Your task to perform on an android device: turn vacation reply on in the gmail app Image 0: 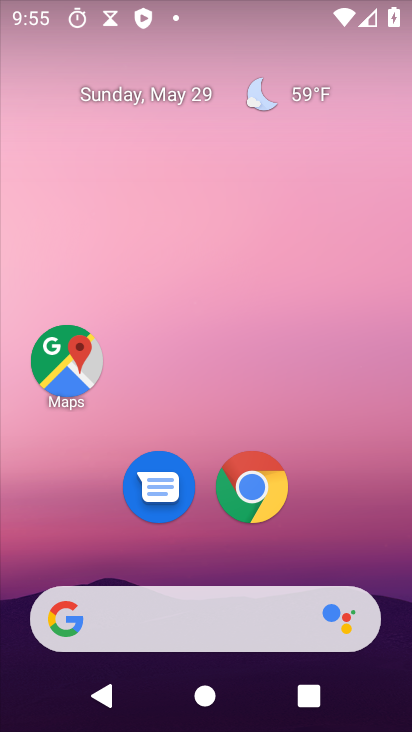
Step 0: drag from (325, 556) to (243, 72)
Your task to perform on an android device: turn vacation reply on in the gmail app Image 1: 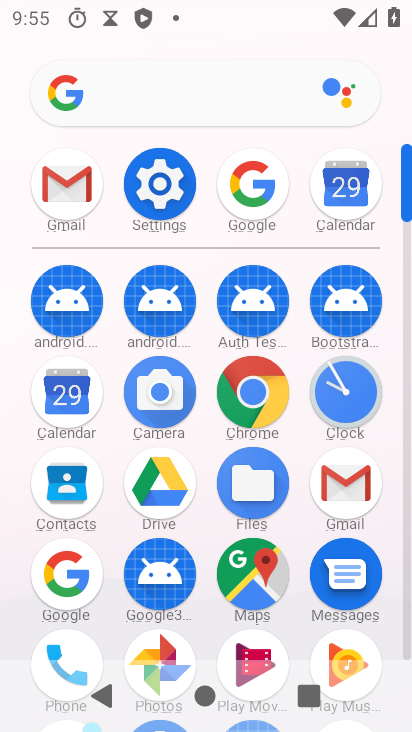
Step 1: click (64, 180)
Your task to perform on an android device: turn vacation reply on in the gmail app Image 2: 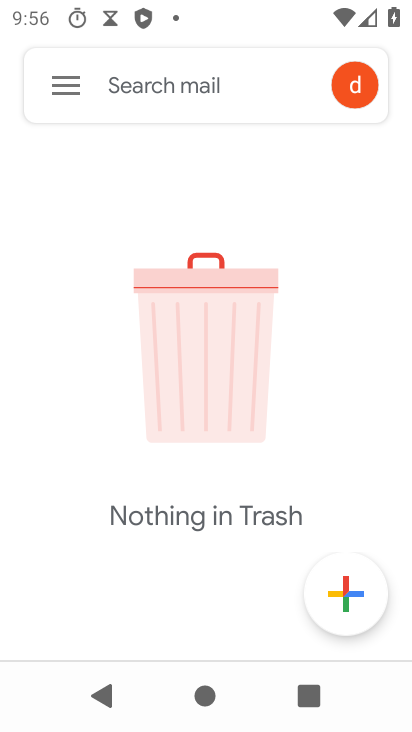
Step 2: click (65, 86)
Your task to perform on an android device: turn vacation reply on in the gmail app Image 3: 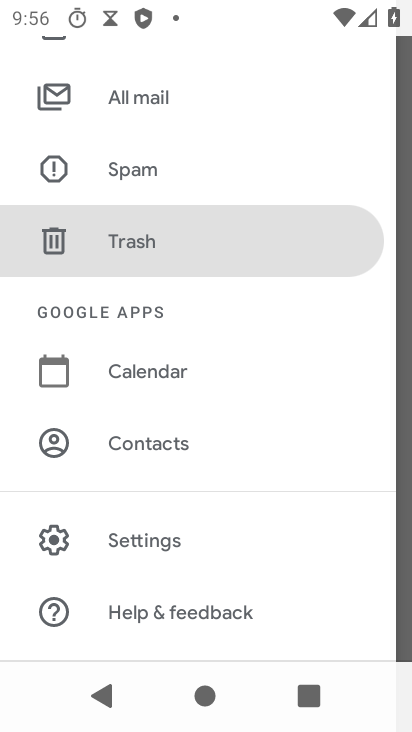
Step 3: drag from (191, 488) to (219, 386)
Your task to perform on an android device: turn vacation reply on in the gmail app Image 4: 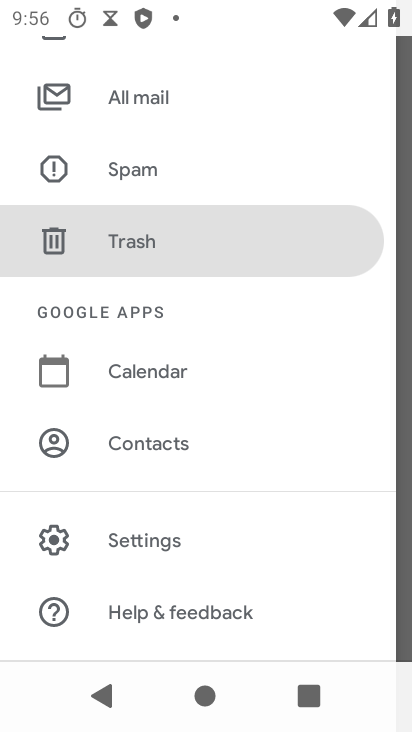
Step 4: click (145, 551)
Your task to perform on an android device: turn vacation reply on in the gmail app Image 5: 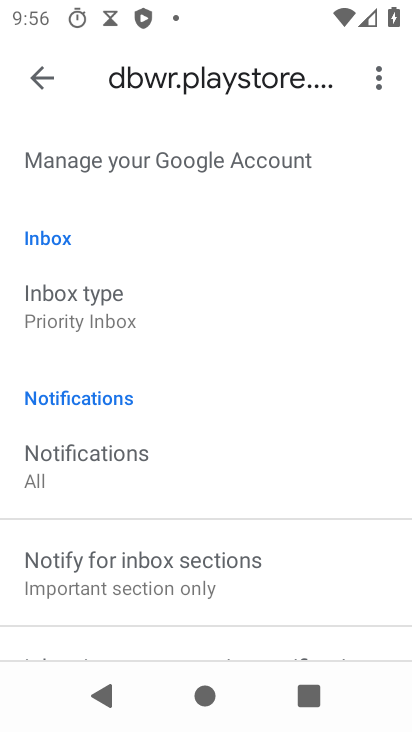
Step 5: drag from (145, 493) to (230, 385)
Your task to perform on an android device: turn vacation reply on in the gmail app Image 6: 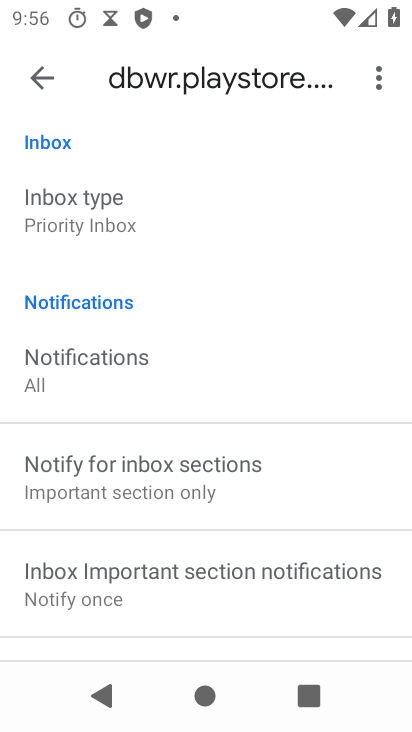
Step 6: drag from (152, 598) to (224, 453)
Your task to perform on an android device: turn vacation reply on in the gmail app Image 7: 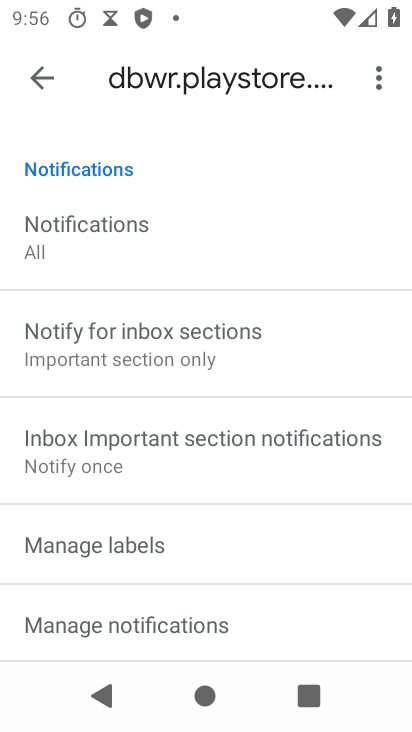
Step 7: drag from (175, 563) to (304, 377)
Your task to perform on an android device: turn vacation reply on in the gmail app Image 8: 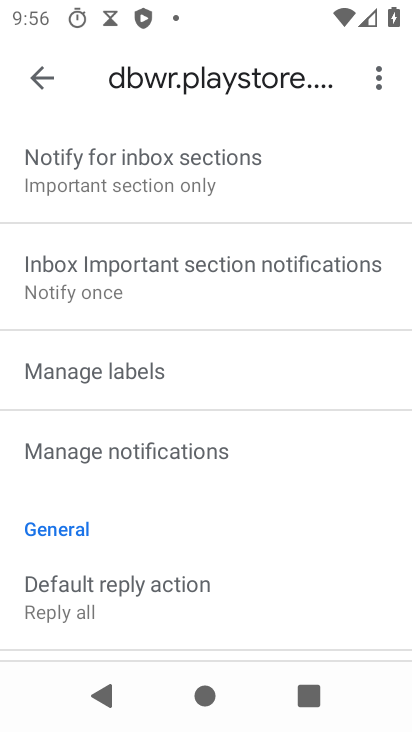
Step 8: drag from (127, 551) to (261, 332)
Your task to perform on an android device: turn vacation reply on in the gmail app Image 9: 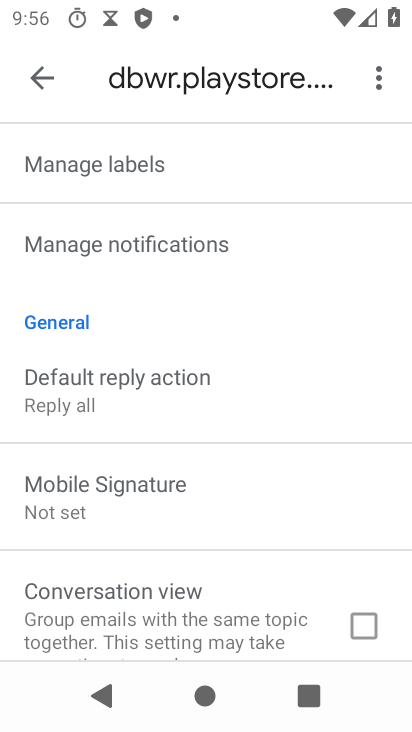
Step 9: drag from (117, 534) to (236, 364)
Your task to perform on an android device: turn vacation reply on in the gmail app Image 10: 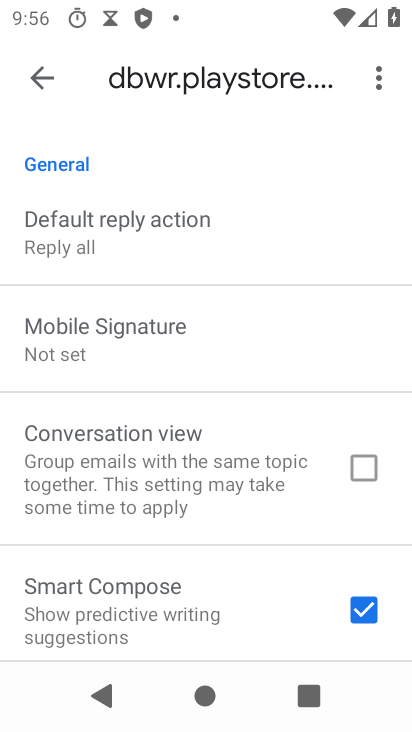
Step 10: drag from (163, 553) to (259, 394)
Your task to perform on an android device: turn vacation reply on in the gmail app Image 11: 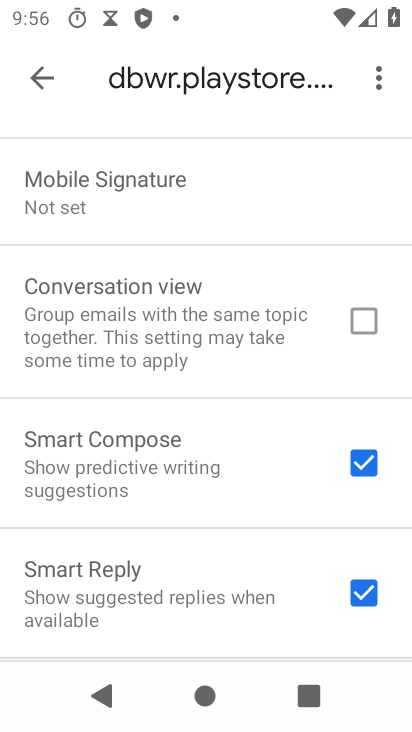
Step 11: drag from (177, 556) to (240, 433)
Your task to perform on an android device: turn vacation reply on in the gmail app Image 12: 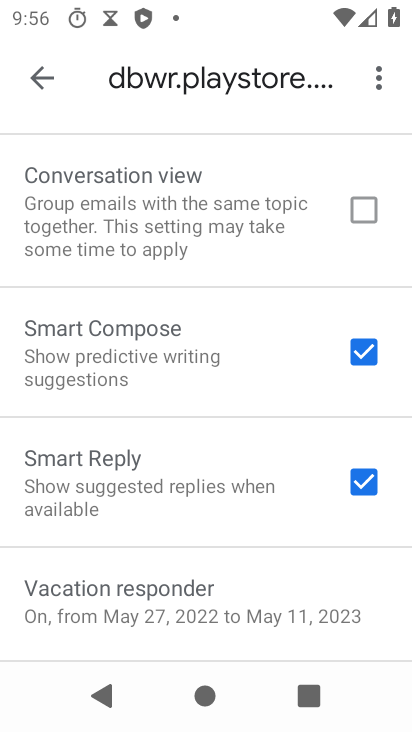
Step 12: click (171, 592)
Your task to perform on an android device: turn vacation reply on in the gmail app Image 13: 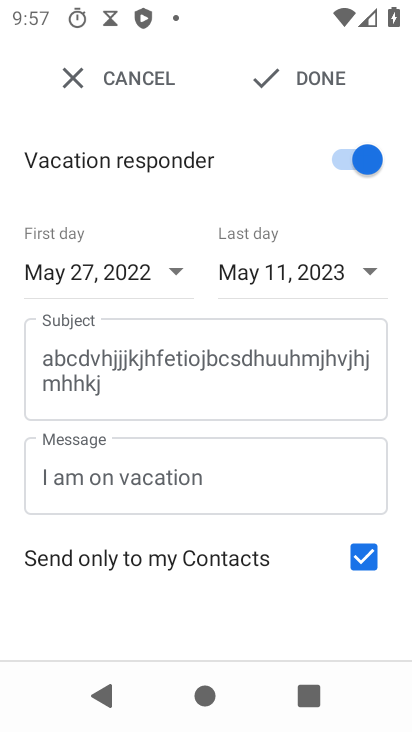
Step 13: task complete